Your task to perform on an android device: turn off priority inbox in the gmail app Image 0: 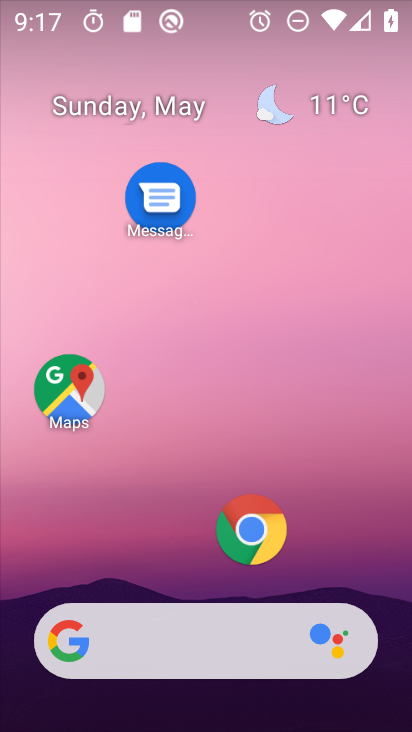
Step 0: drag from (202, 575) to (277, 162)
Your task to perform on an android device: turn off priority inbox in the gmail app Image 1: 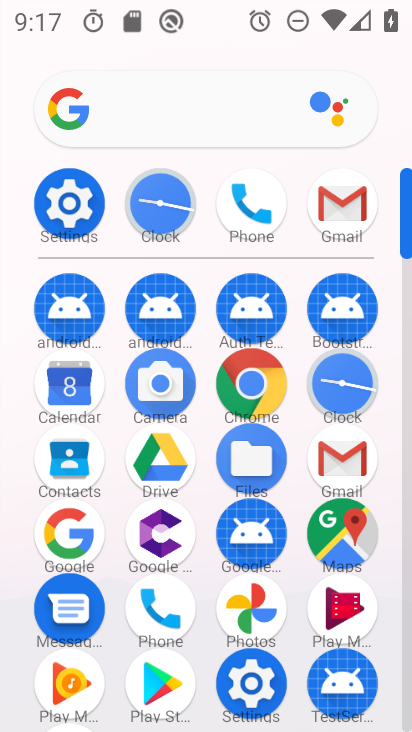
Step 1: click (345, 449)
Your task to perform on an android device: turn off priority inbox in the gmail app Image 2: 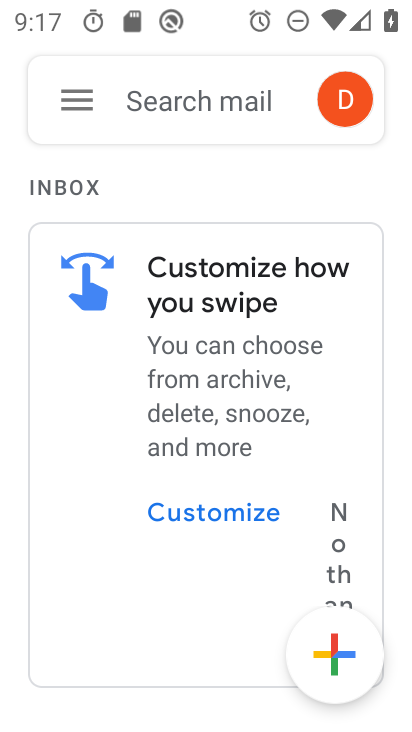
Step 2: click (82, 97)
Your task to perform on an android device: turn off priority inbox in the gmail app Image 3: 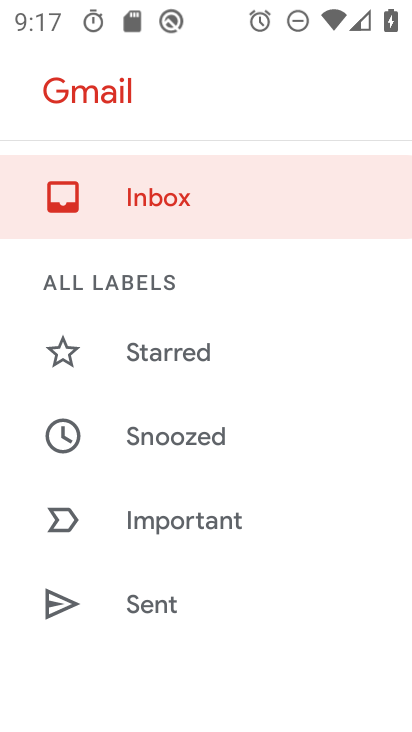
Step 3: drag from (155, 598) to (204, 225)
Your task to perform on an android device: turn off priority inbox in the gmail app Image 4: 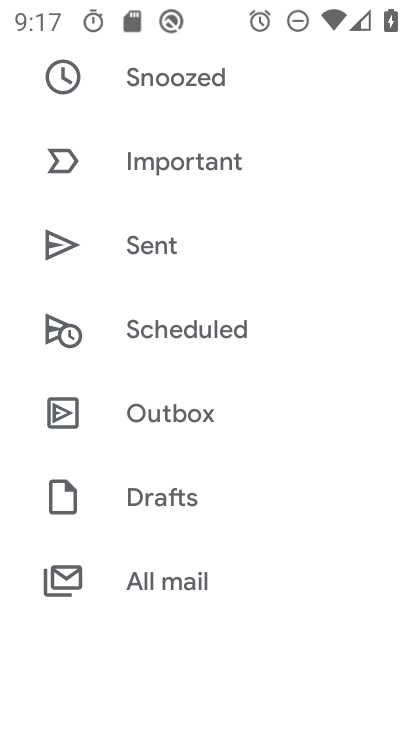
Step 4: drag from (147, 557) to (174, 148)
Your task to perform on an android device: turn off priority inbox in the gmail app Image 5: 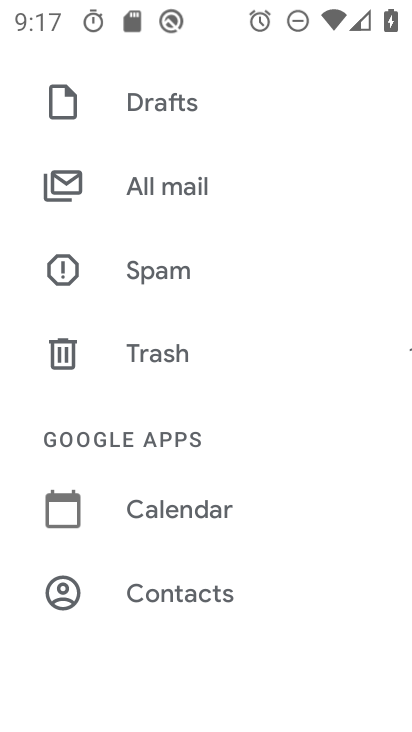
Step 5: drag from (127, 591) to (167, 236)
Your task to perform on an android device: turn off priority inbox in the gmail app Image 6: 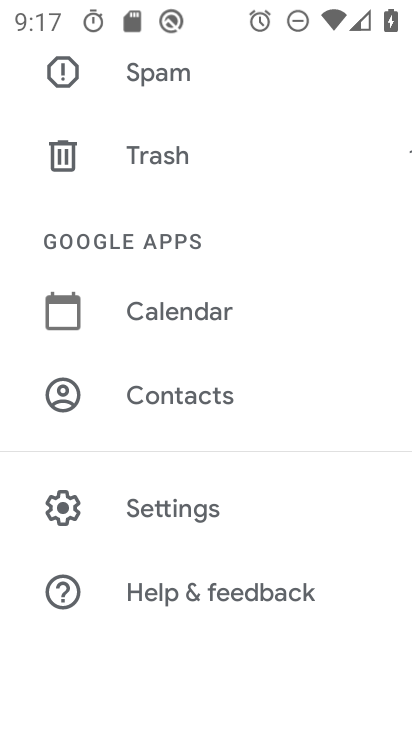
Step 6: click (103, 501)
Your task to perform on an android device: turn off priority inbox in the gmail app Image 7: 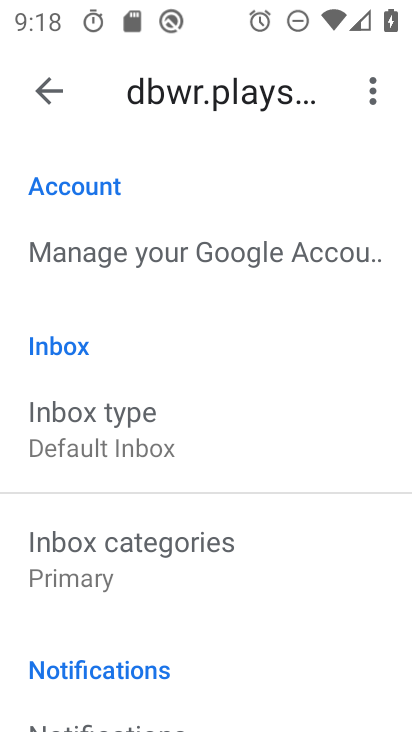
Step 7: click (176, 444)
Your task to perform on an android device: turn off priority inbox in the gmail app Image 8: 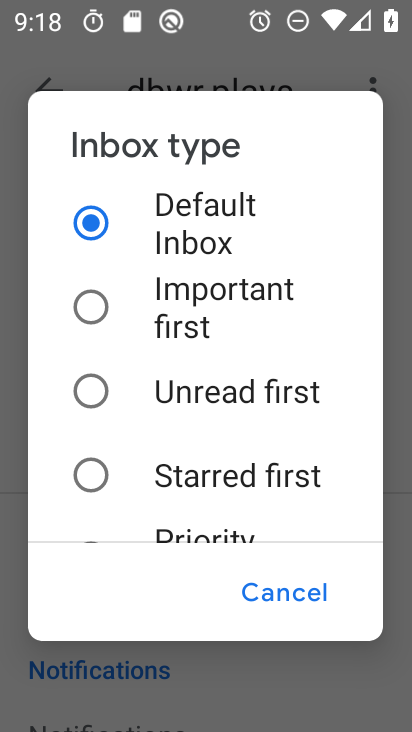
Step 8: drag from (123, 486) to (162, 309)
Your task to perform on an android device: turn off priority inbox in the gmail app Image 9: 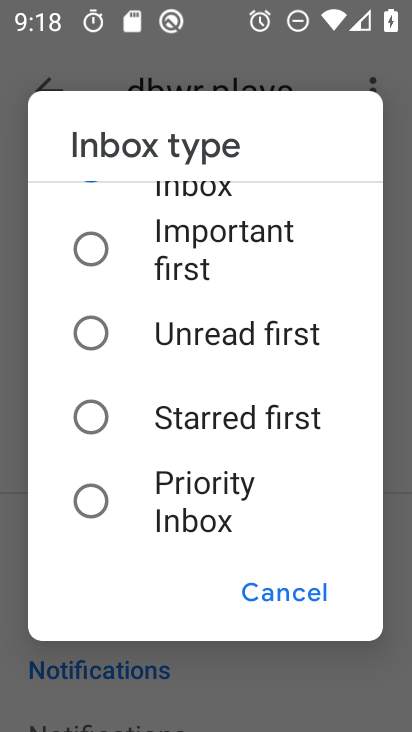
Step 9: click (89, 495)
Your task to perform on an android device: turn off priority inbox in the gmail app Image 10: 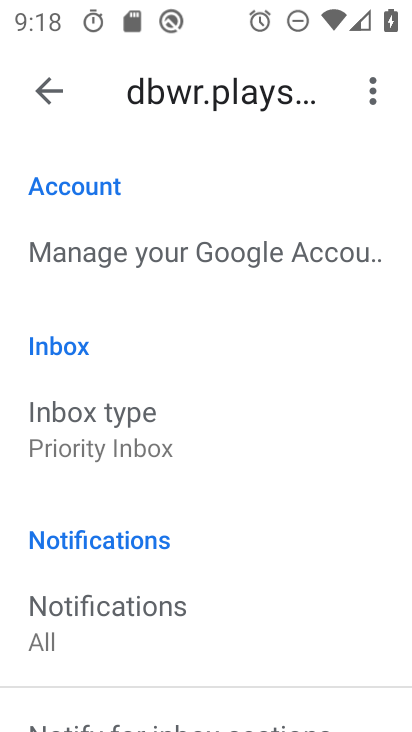
Step 10: task complete